Your task to perform on an android device: open wifi settings Image 0: 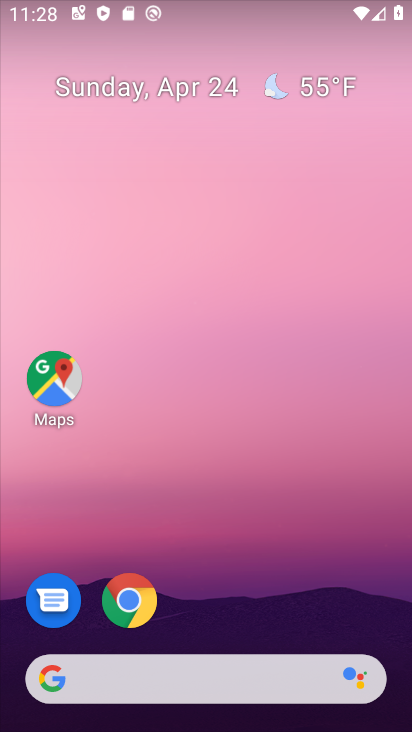
Step 0: drag from (218, 7) to (239, 645)
Your task to perform on an android device: open wifi settings Image 1: 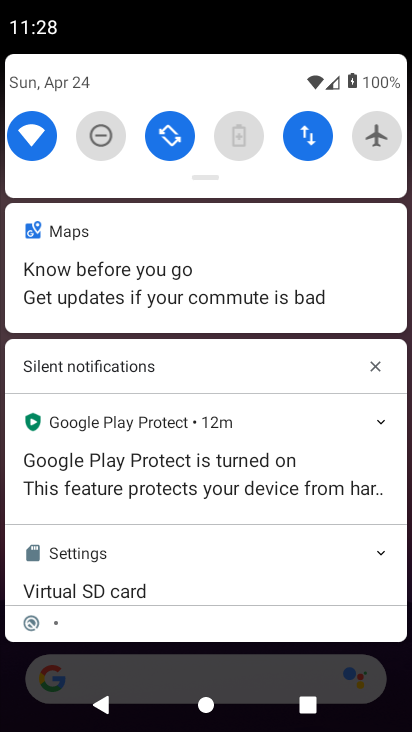
Step 1: click (44, 138)
Your task to perform on an android device: open wifi settings Image 2: 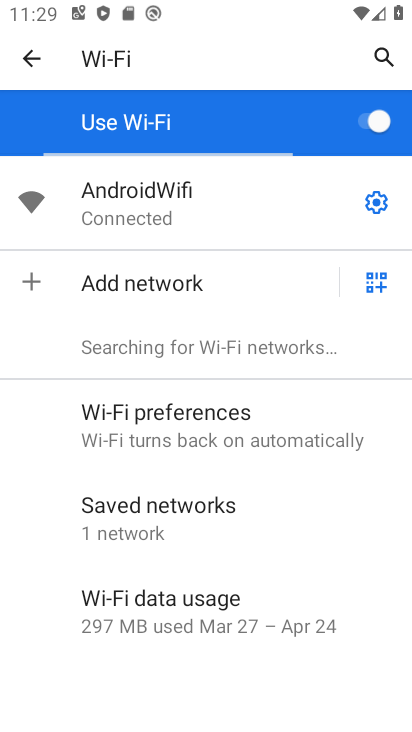
Step 2: task complete